Your task to perform on an android device: turn on javascript in the chrome app Image 0: 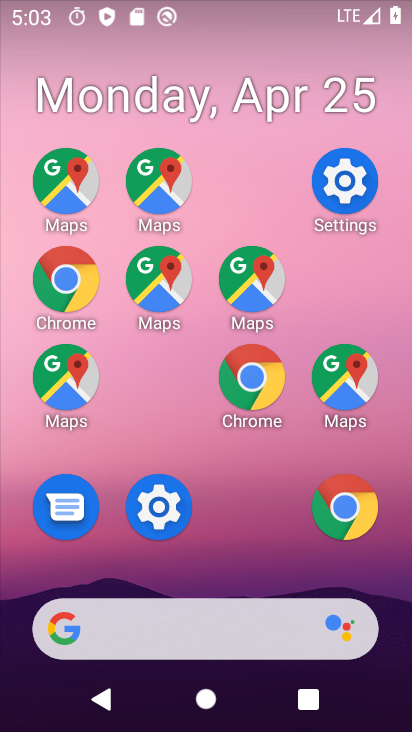
Step 0: click (95, 4)
Your task to perform on an android device: turn on javascript in the chrome app Image 1: 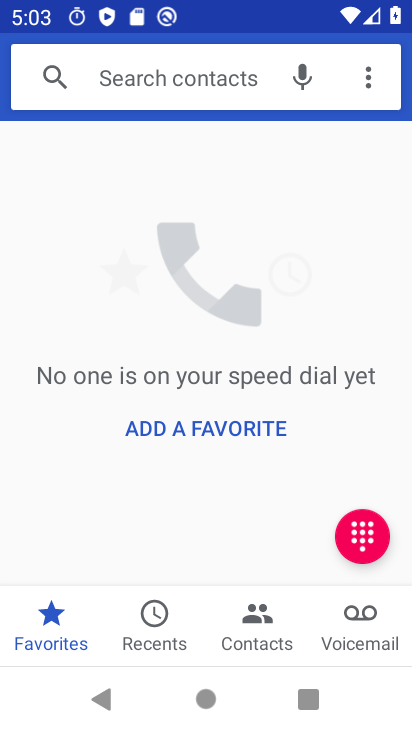
Step 1: press home button
Your task to perform on an android device: turn on javascript in the chrome app Image 2: 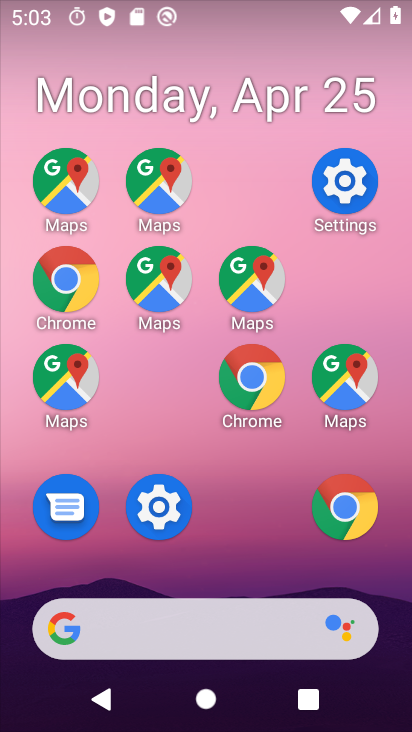
Step 2: drag from (241, 617) to (117, 76)
Your task to perform on an android device: turn on javascript in the chrome app Image 3: 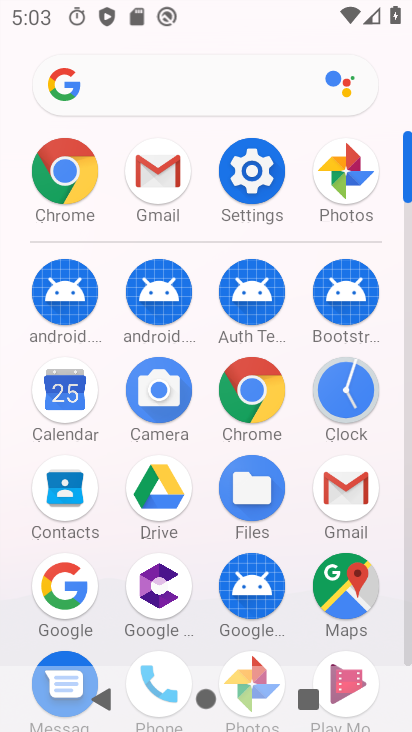
Step 3: click (59, 171)
Your task to perform on an android device: turn on javascript in the chrome app Image 4: 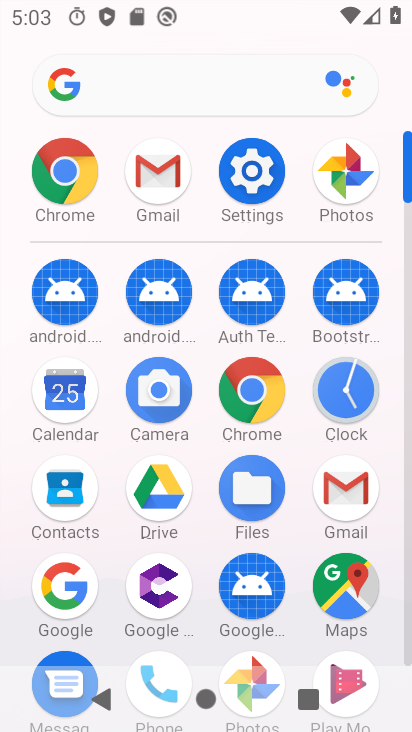
Step 4: click (63, 172)
Your task to perform on an android device: turn on javascript in the chrome app Image 5: 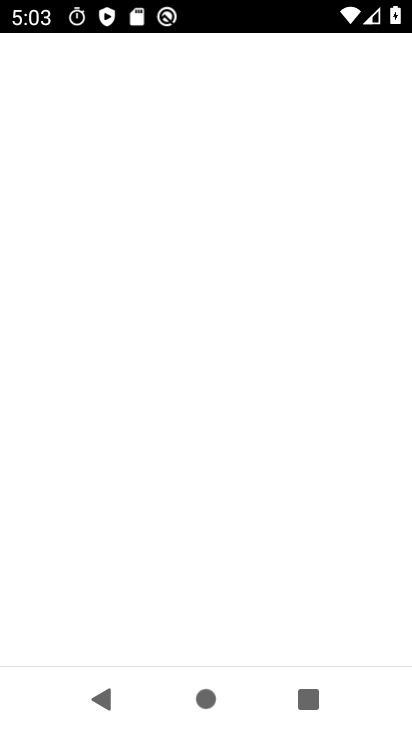
Step 5: click (65, 173)
Your task to perform on an android device: turn on javascript in the chrome app Image 6: 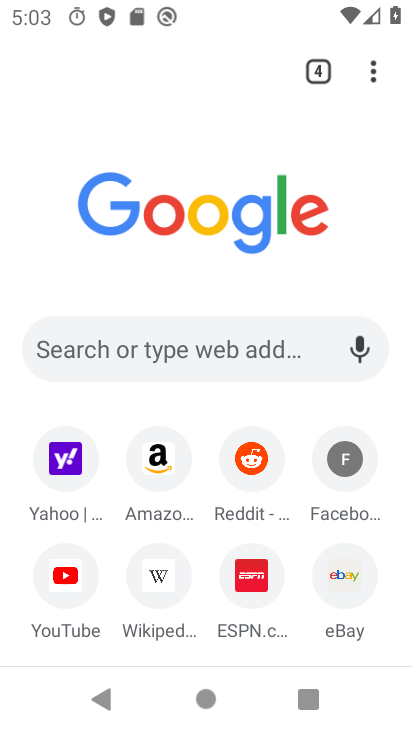
Step 6: click (369, 66)
Your task to perform on an android device: turn on javascript in the chrome app Image 7: 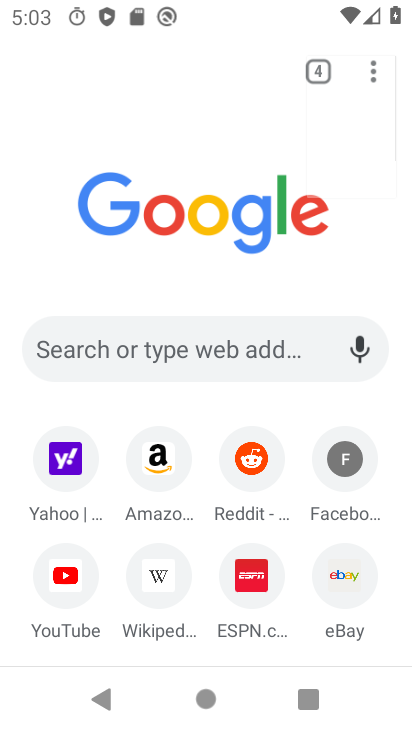
Step 7: click (370, 67)
Your task to perform on an android device: turn on javascript in the chrome app Image 8: 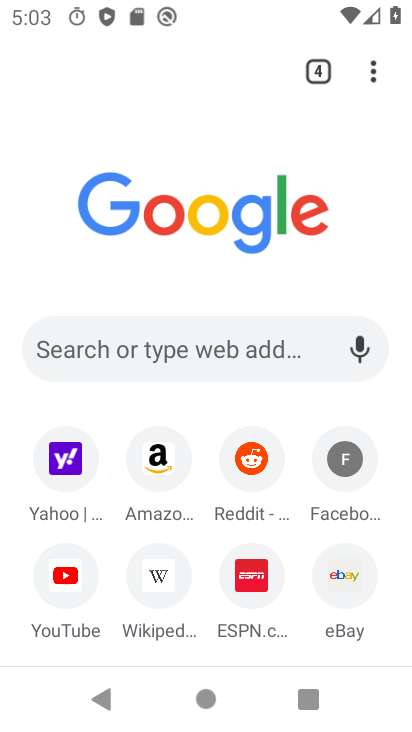
Step 8: drag from (370, 70) to (217, 237)
Your task to perform on an android device: turn on javascript in the chrome app Image 9: 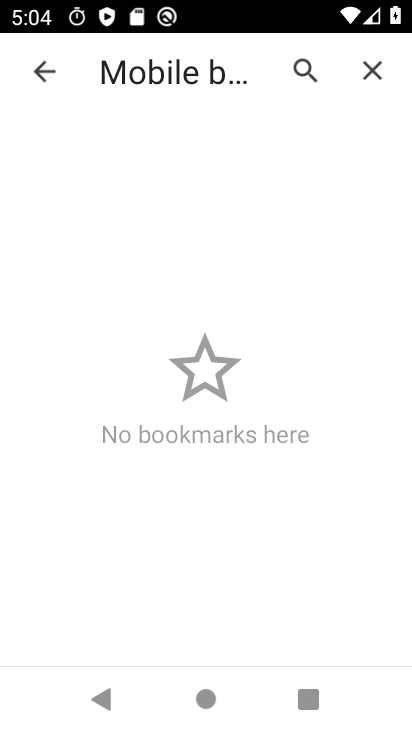
Step 9: click (34, 69)
Your task to perform on an android device: turn on javascript in the chrome app Image 10: 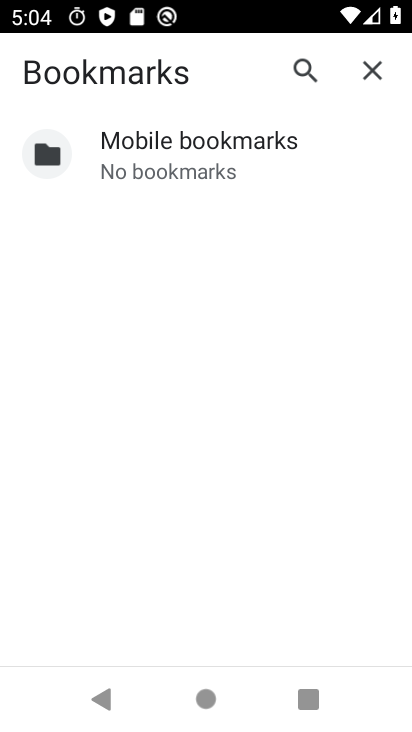
Step 10: click (361, 61)
Your task to perform on an android device: turn on javascript in the chrome app Image 11: 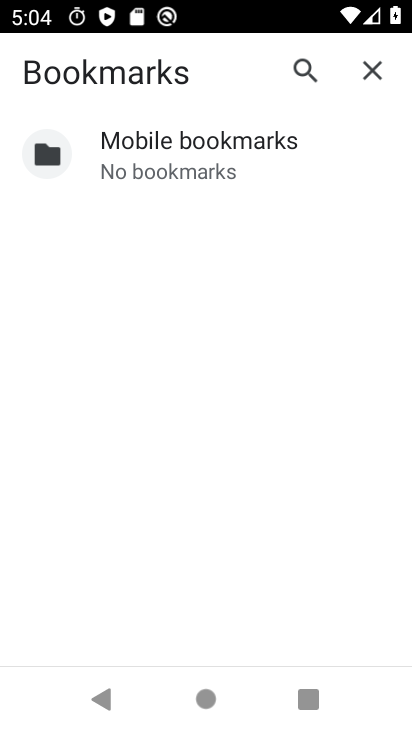
Step 11: click (362, 68)
Your task to perform on an android device: turn on javascript in the chrome app Image 12: 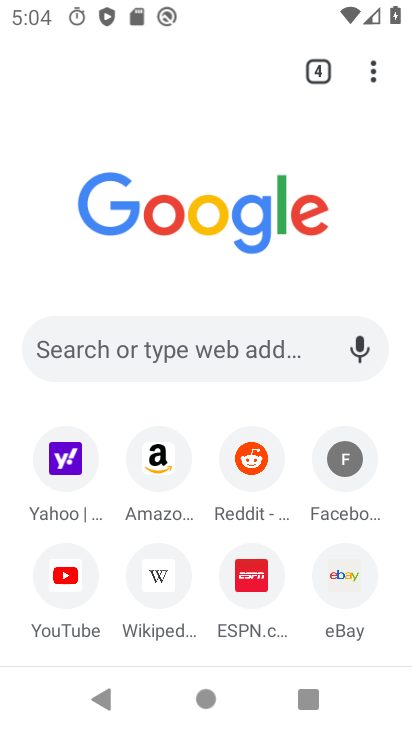
Step 12: drag from (374, 83) to (176, 490)
Your task to perform on an android device: turn on javascript in the chrome app Image 13: 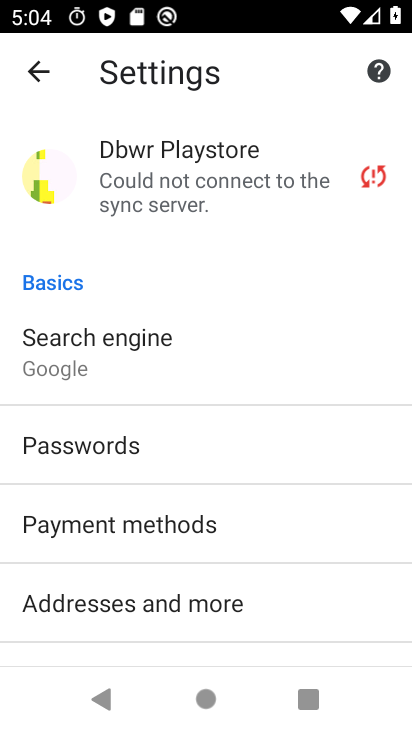
Step 13: click (31, 70)
Your task to perform on an android device: turn on javascript in the chrome app Image 14: 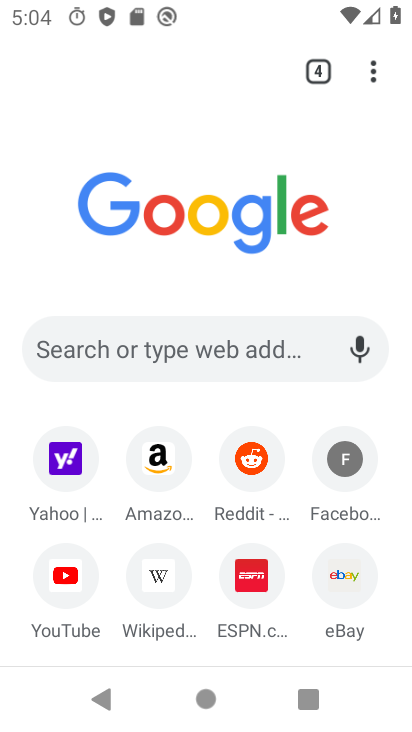
Step 14: click (371, 78)
Your task to perform on an android device: turn on javascript in the chrome app Image 15: 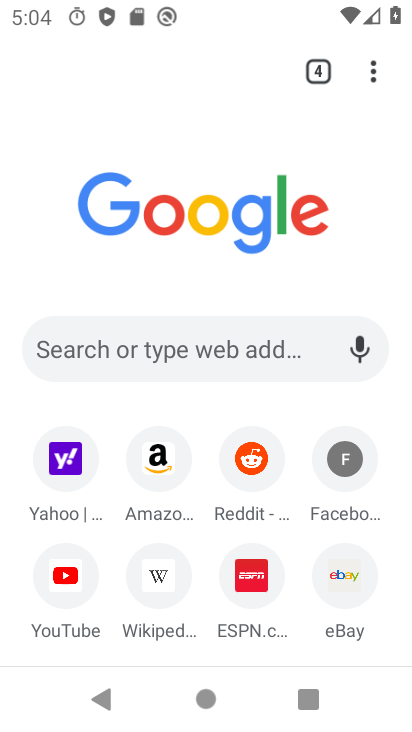
Step 15: drag from (370, 71) to (140, 505)
Your task to perform on an android device: turn on javascript in the chrome app Image 16: 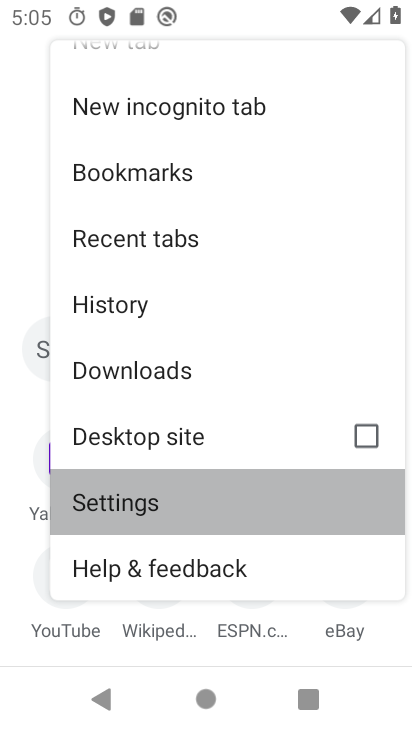
Step 16: click (140, 505)
Your task to perform on an android device: turn on javascript in the chrome app Image 17: 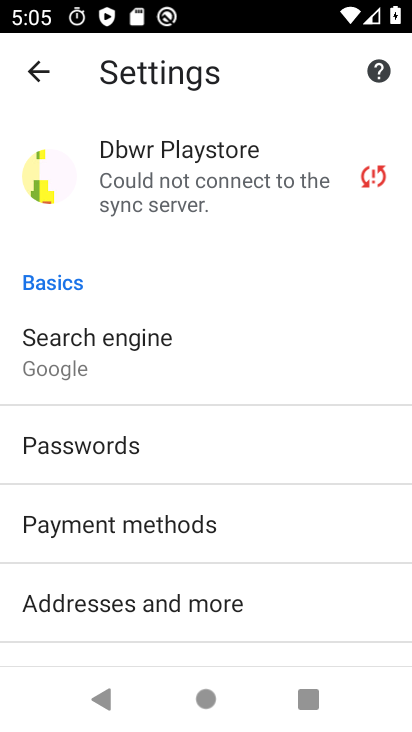
Step 17: drag from (153, 385) to (148, 87)
Your task to perform on an android device: turn on javascript in the chrome app Image 18: 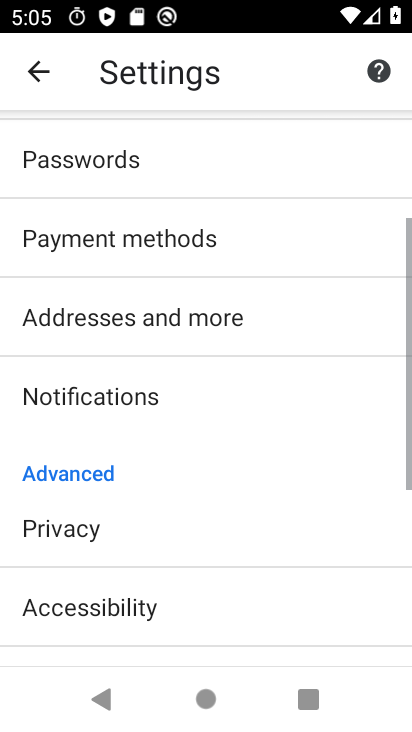
Step 18: drag from (181, 371) to (138, 73)
Your task to perform on an android device: turn on javascript in the chrome app Image 19: 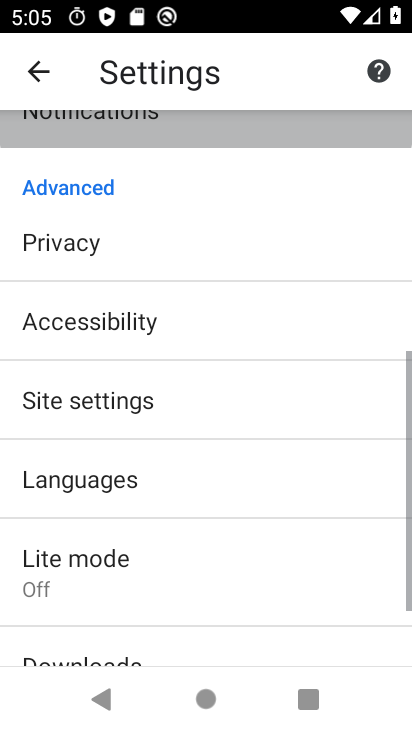
Step 19: drag from (165, 462) to (137, 108)
Your task to perform on an android device: turn on javascript in the chrome app Image 20: 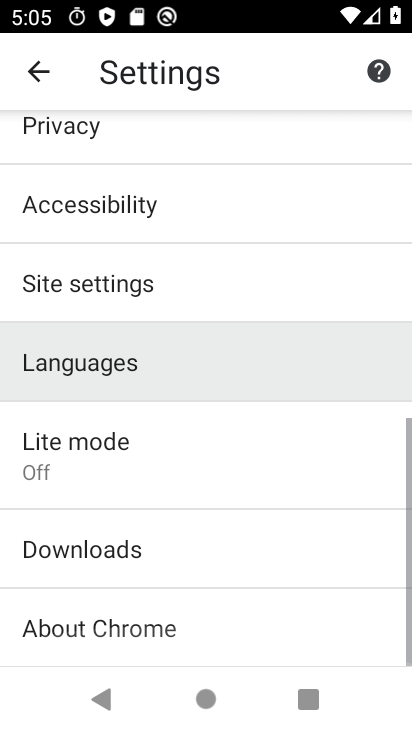
Step 20: drag from (214, 506) to (253, 50)
Your task to perform on an android device: turn on javascript in the chrome app Image 21: 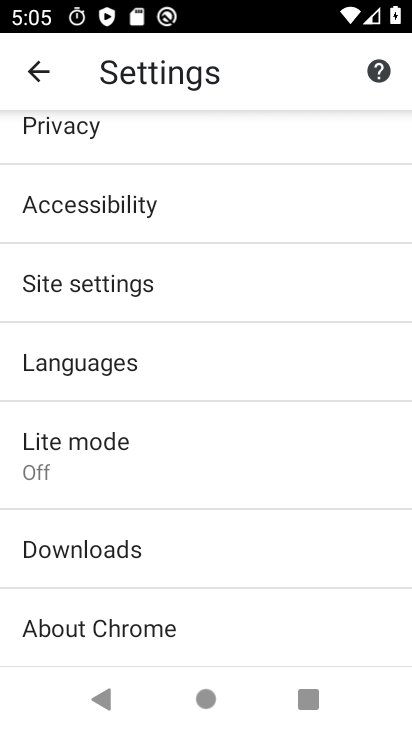
Step 21: click (80, 285)
Your task to perform on an android device: turn on javascript in the chrome app Image 22: 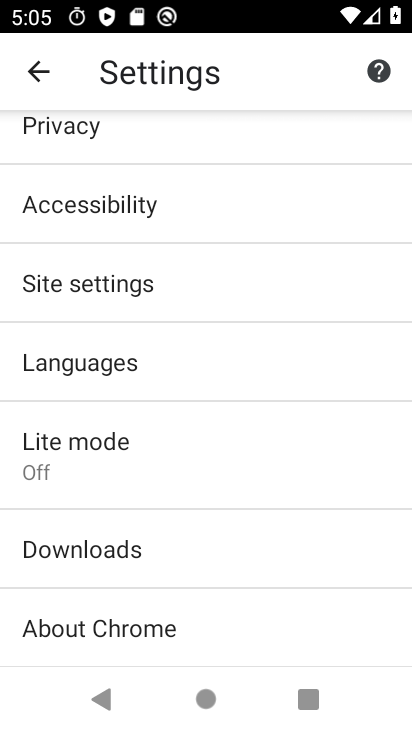
Step 22: click (80, 285)
Your task to perform on an android device: turn on javascript in the chrome app Image 23: 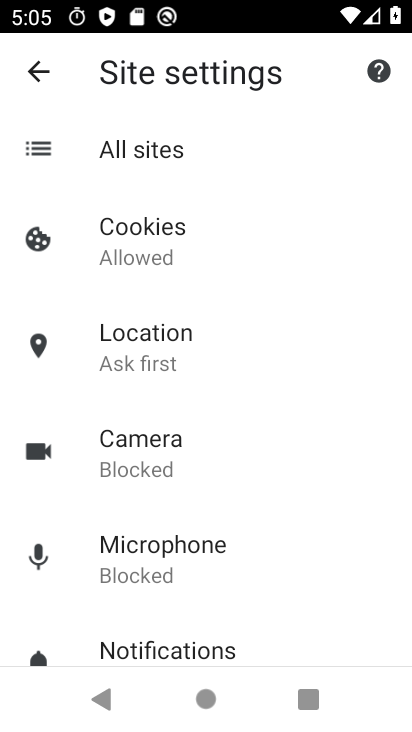
Step 23: drag from (148, 527) to (85, 172)
Your task to perform on an android device: turn on javascript in the chrome app Image 24: 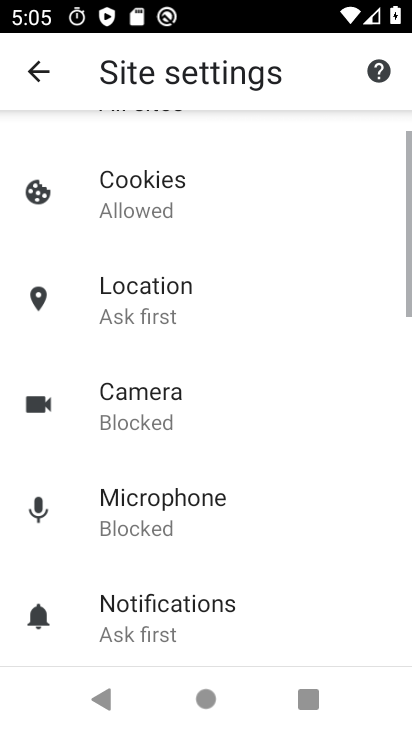
Step 24: click (177, 192)
Your task to perform on an android device: turn on javascript in the chrome app Image 25: 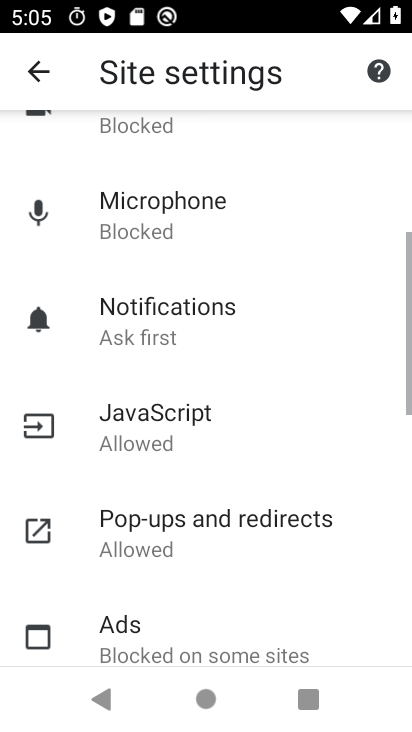
Step 25: drag from (209, 6) to (169, 151)
Your task to perform on an android device: turn on javascript in the chrome app Image 26: 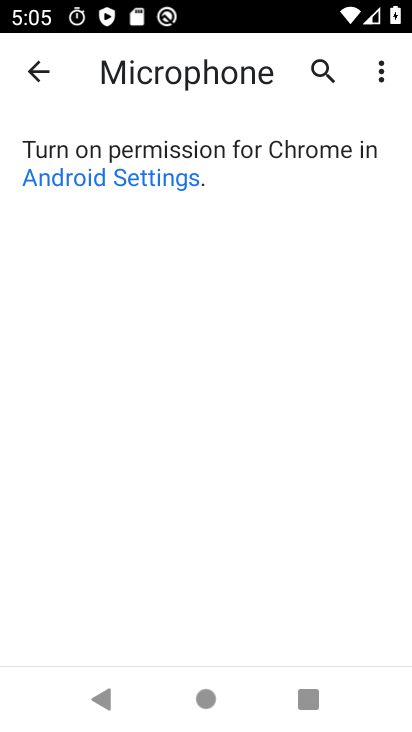
Step 26: click (35, 71)
Your task to perform on an android device: turn on javascript in the chrome app Image 27: 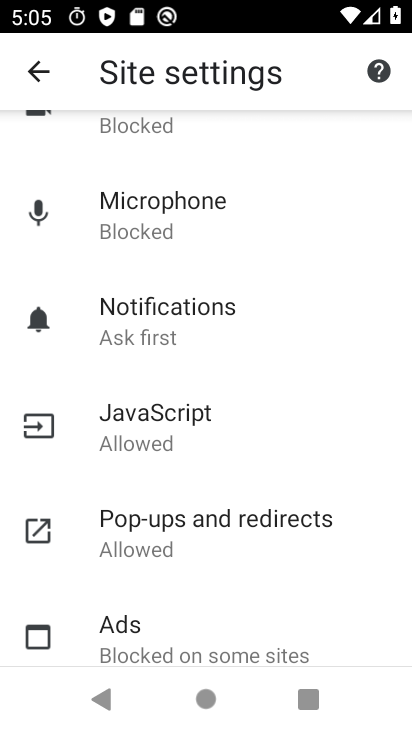
Step 27: click (148, 441)
Your task to perform on an android device: turn on javascript in the chrome app Image 28: 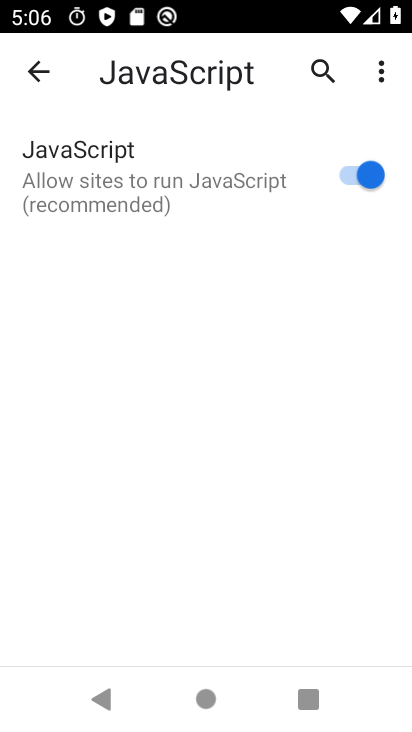
Step 28: task complete